Your task to perform on an android device: Open Google Chrome and open the bookmarks view Image 0: 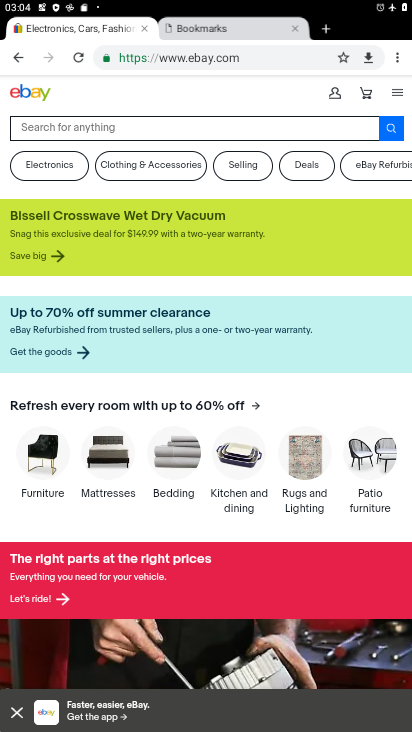
Step 0: press home button
Your task to perform on an android device: Open Google Chrome and open the bookmarks view Image 1: 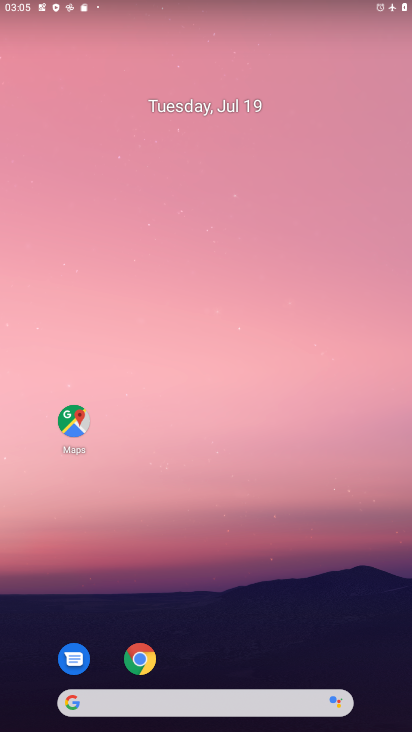
Step 1: click (141, 660)
Your task to perform on an android device: Open Google Chrome and open the bookmarks view Image 2: 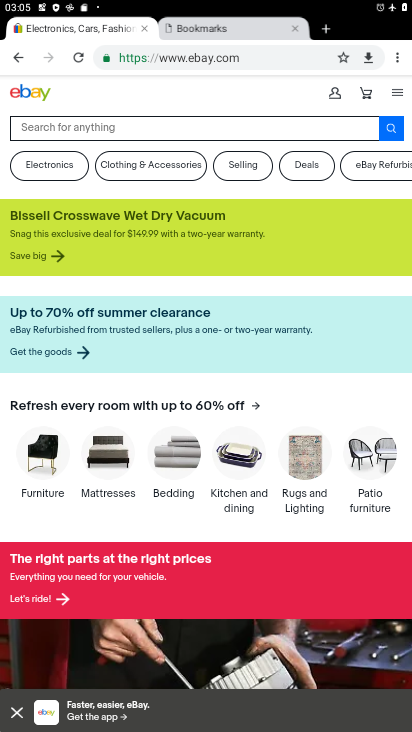
Step 2: task complete